Your task to perform on an android device: change the clock display to show seconds Image 0: 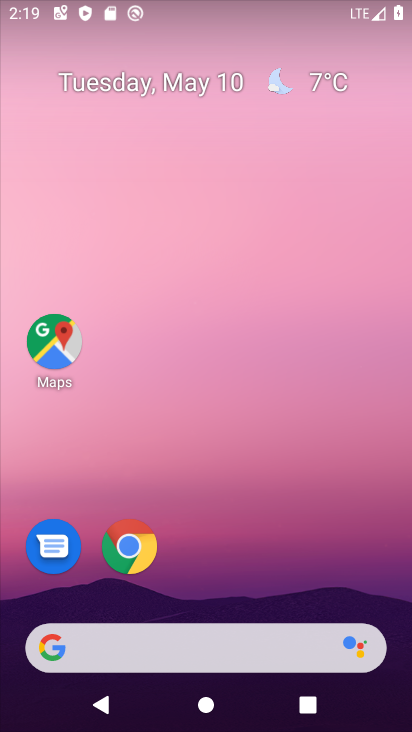
Step 0: drag from (283, 578) to (189, 51)
Your task to perform on an android device: change the clock display to show seconds Image 1: 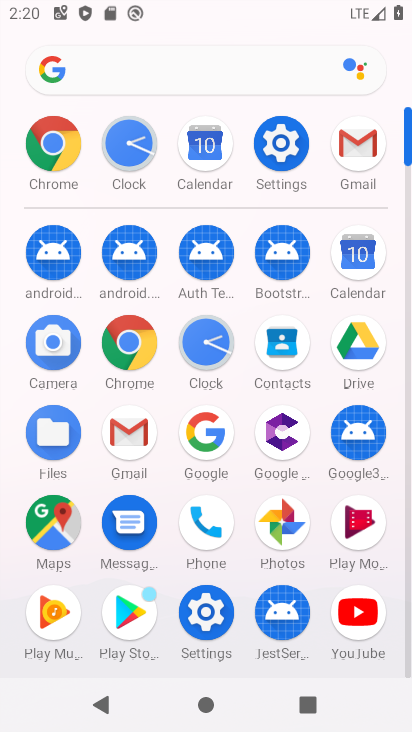
Step 1: click (120, 158)
Your task to perform on an android device: change the clock display to show seconds Image 2: 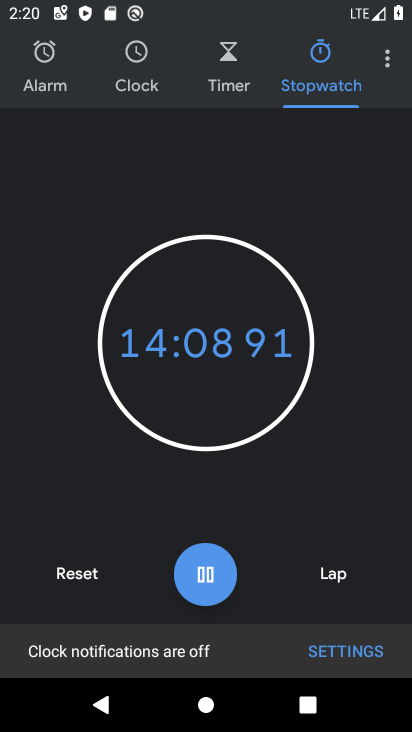
Step 2: click (382, 68)
Your task to perform on an android device: change the clock display to show seconds Image 3: 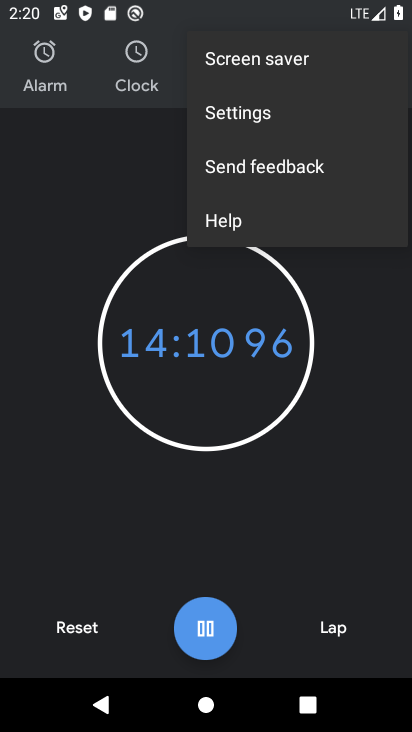
Step 3: click (273, 117)
Your task to perform on an android device: change the clock display to show seconds Image 4: 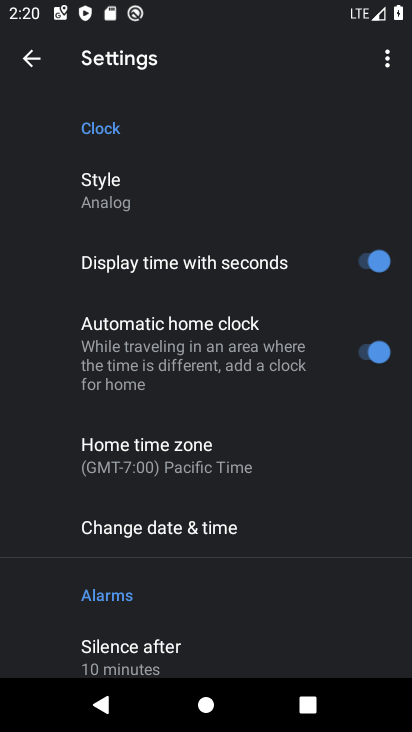
Step 4: task complete